Your task to perform on an android device: Search for a runner rug on Crate & Barrel. Image 0: 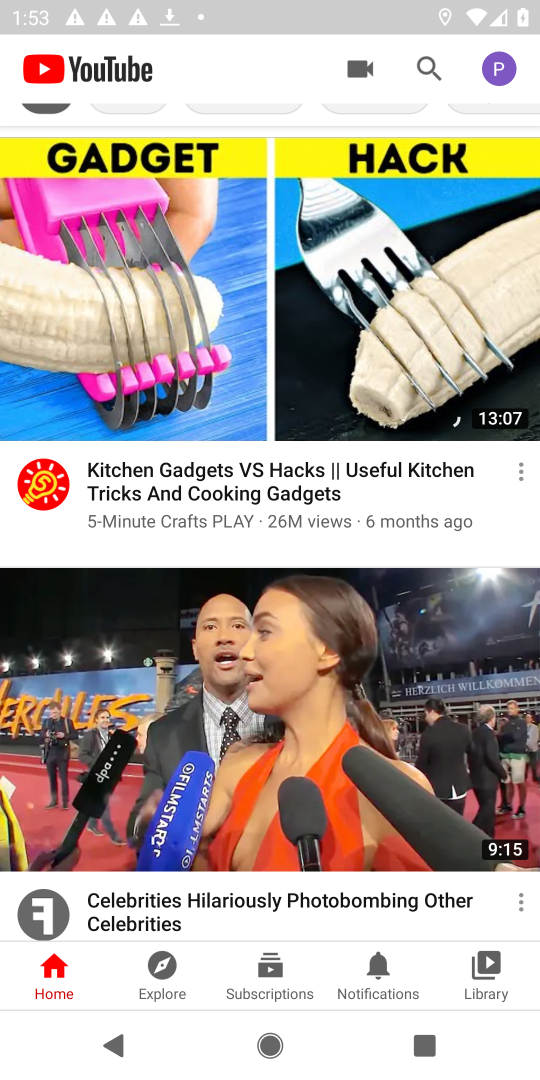
Step 0: press home button
Your task to perform on an android device: Search for a runner rug on Crate & Barrel. Image 1: 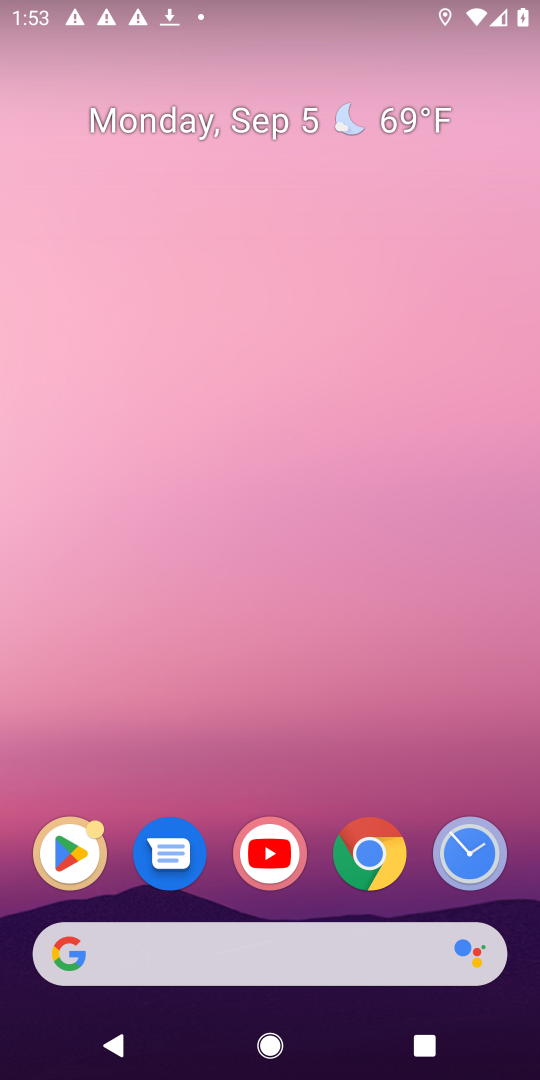
Step 1: click (470, 78)
Your task to perform on an android device: Search for a runner rug on Crate & Barrel. Image 2: 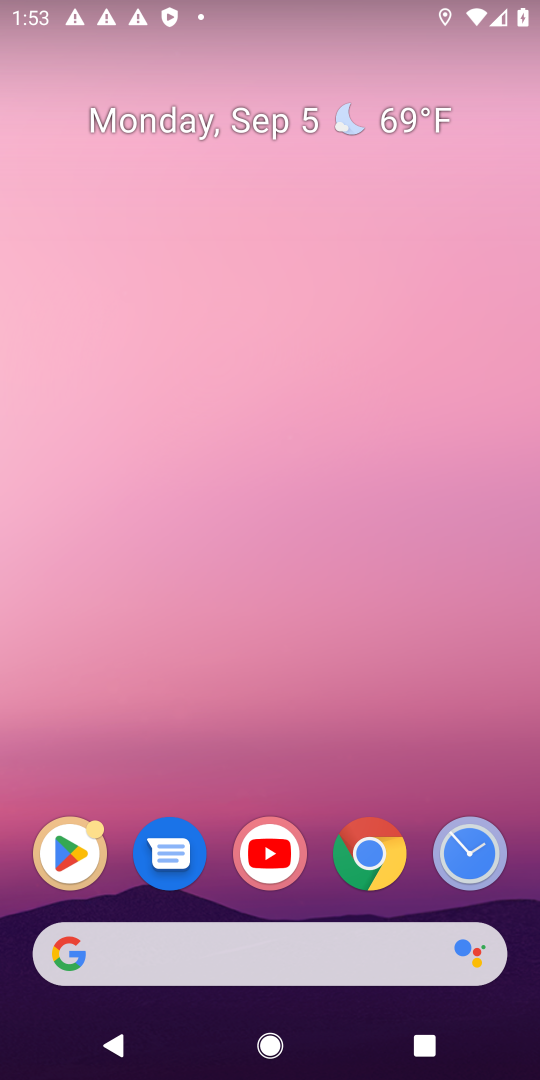
Step 2: drag from (239, 926) to (378, 147)
Your task to perform on an android device: Search for a runner rug on Crate & Barrel. Image 3: 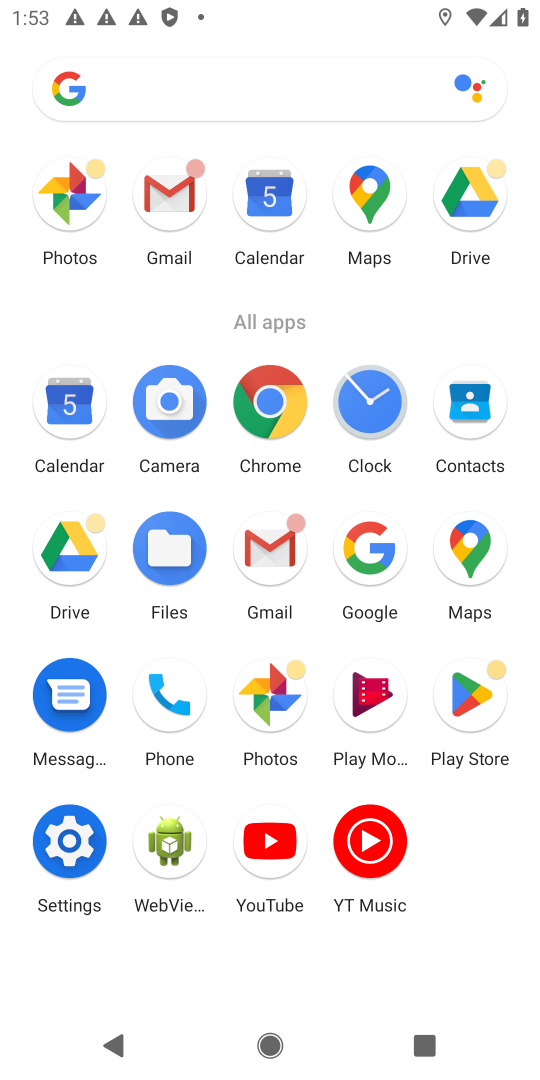
Step 3: click (371, 559)
Your task to perform on an android device: Search for a runner rug on Crate & Barrel. Image 4: 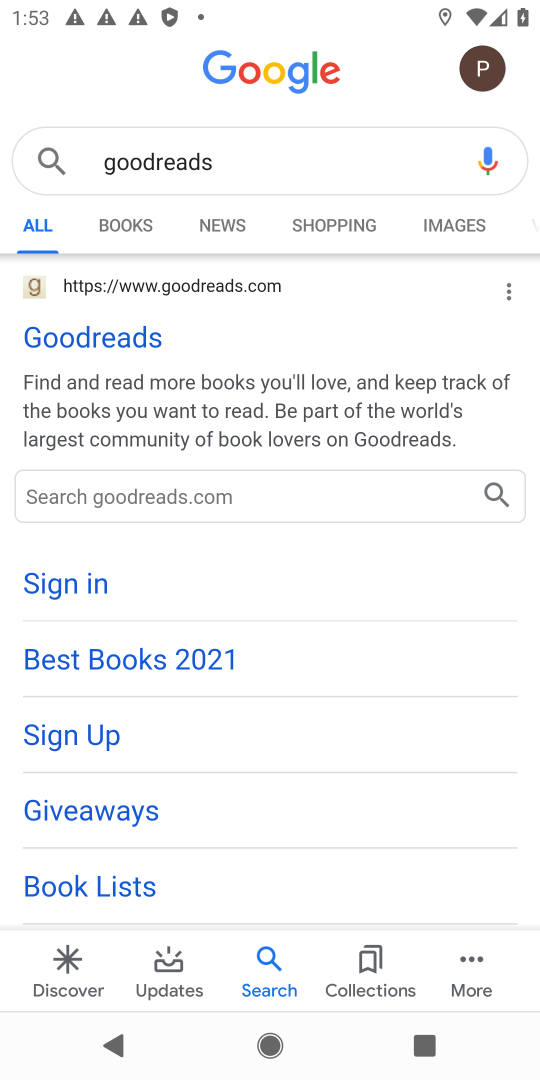
Step 4: click (244, 170)
Your task to perform on an android device: Search for a runner rug on Crate & Barrel. Image 5: 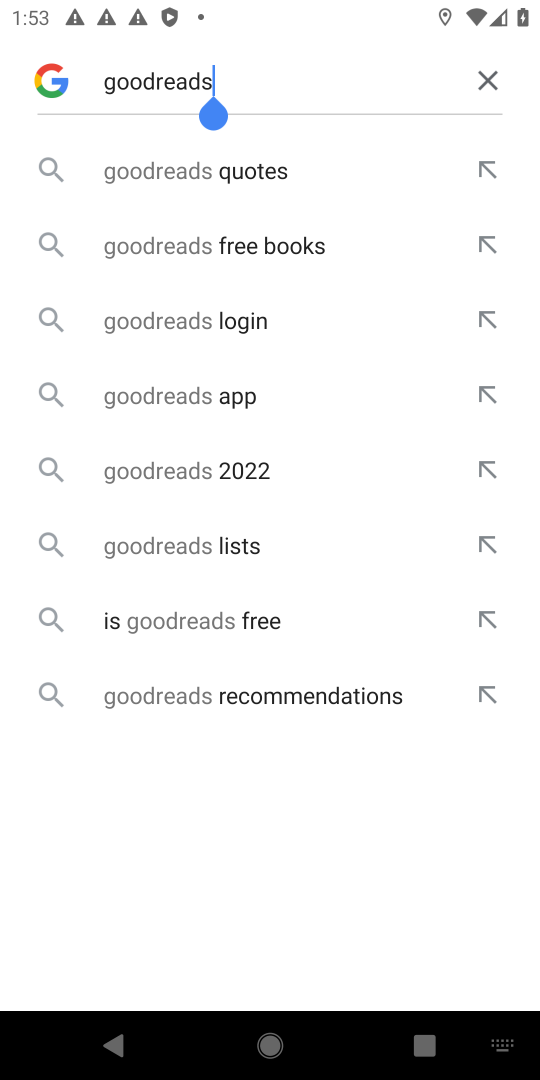
Step 5: click (492, 87)
Your task to perform on an android device: Search for a runner rug on Crate & Barrel. Image 6: 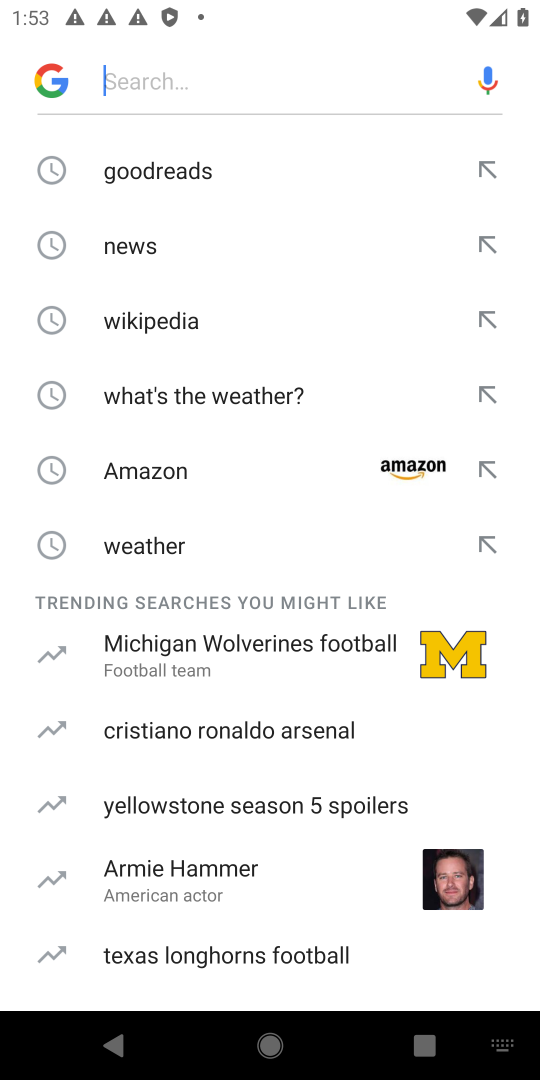
Step 6: type "Crate & Barrel"
Your task to perform on an android device: Search for a runner rug on Crate & Barrel. Image 7: 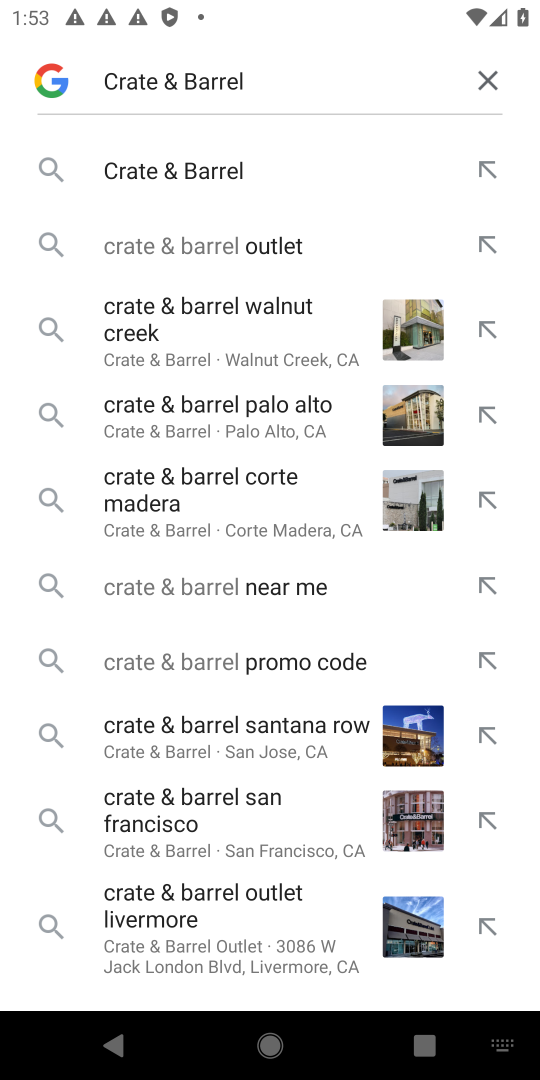
Step 7: click (218, 163)
Your task to perform on an android device: Search for a runner rug on Crate & Barrel. Image 8: 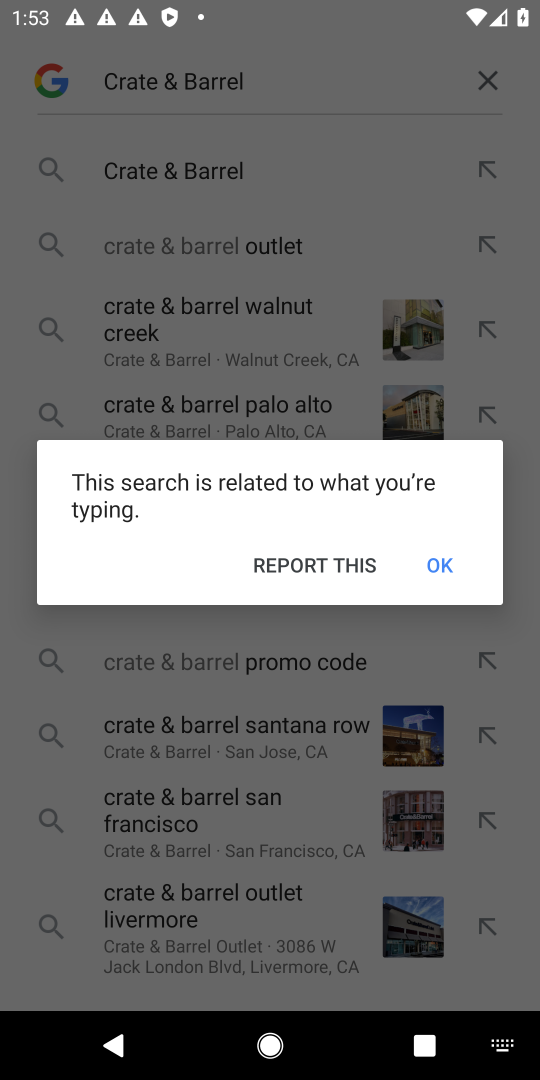
Step 8: click (439, 571)
Your task to perform on an android device: Search for a runner rug on Crate & Barrel. Image 9: 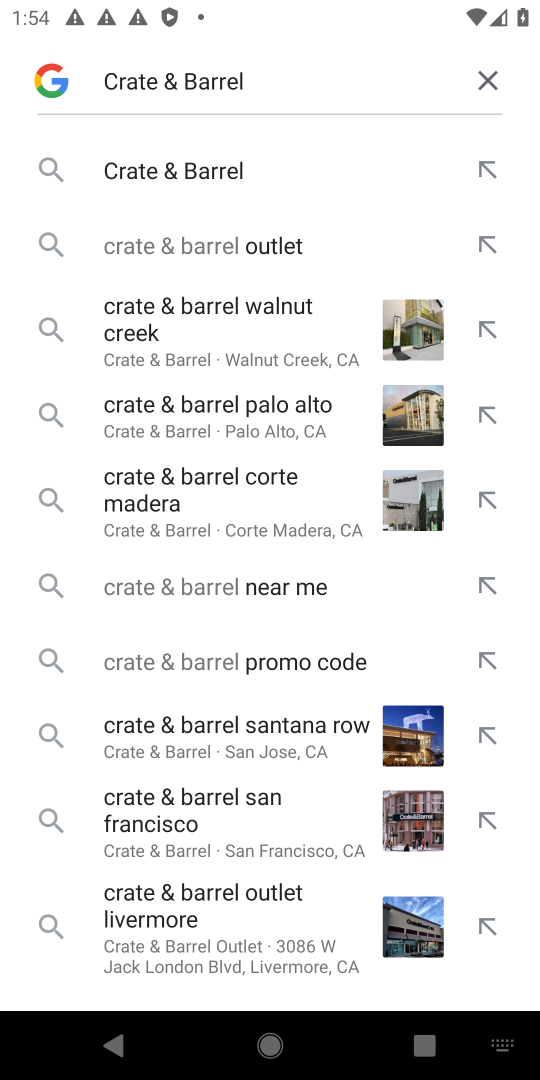
Step 9: click (488, 175)
Your task to perform on an android device: Search for a runner rug on Crate & Barrel. Image 10: 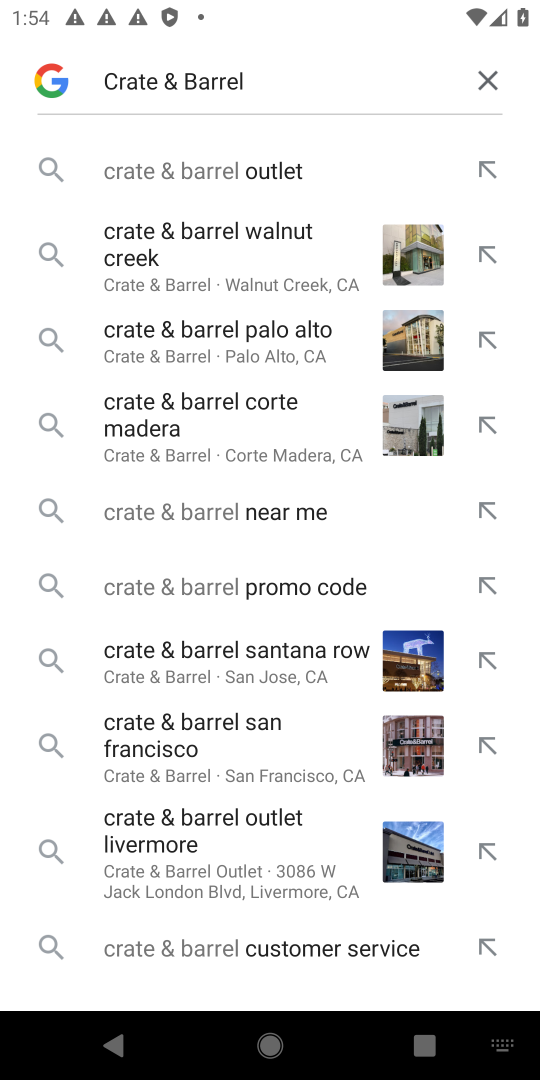
Step 10: click (263, 165)
Your task to perform on an android device: Search for a runner rug on Crate & Barrel. Image 11: 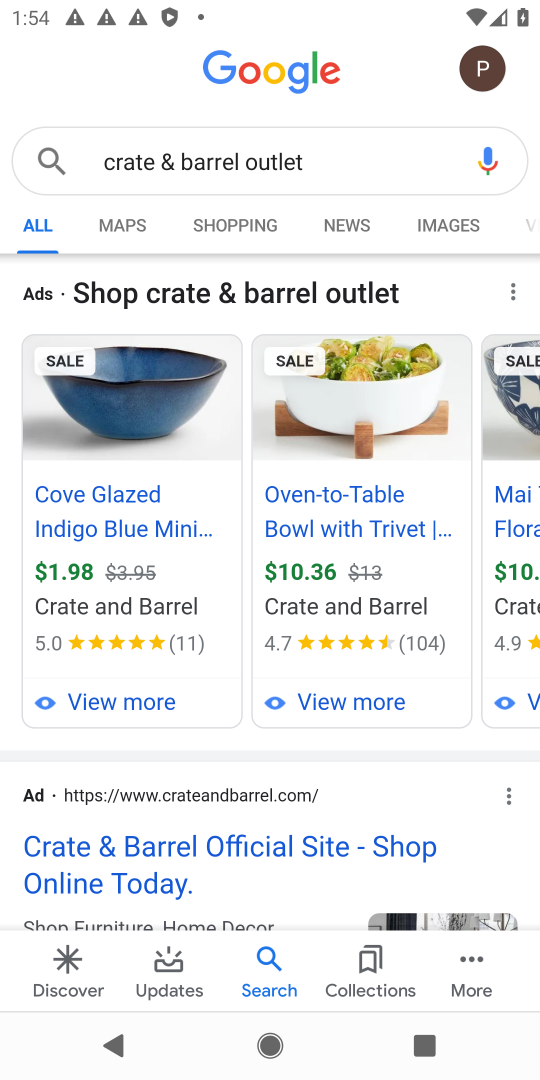
Step 11: click (209, 865)
Your task to perform on an android device: Search for a runner rug on Crate & Barrel. Image 12: 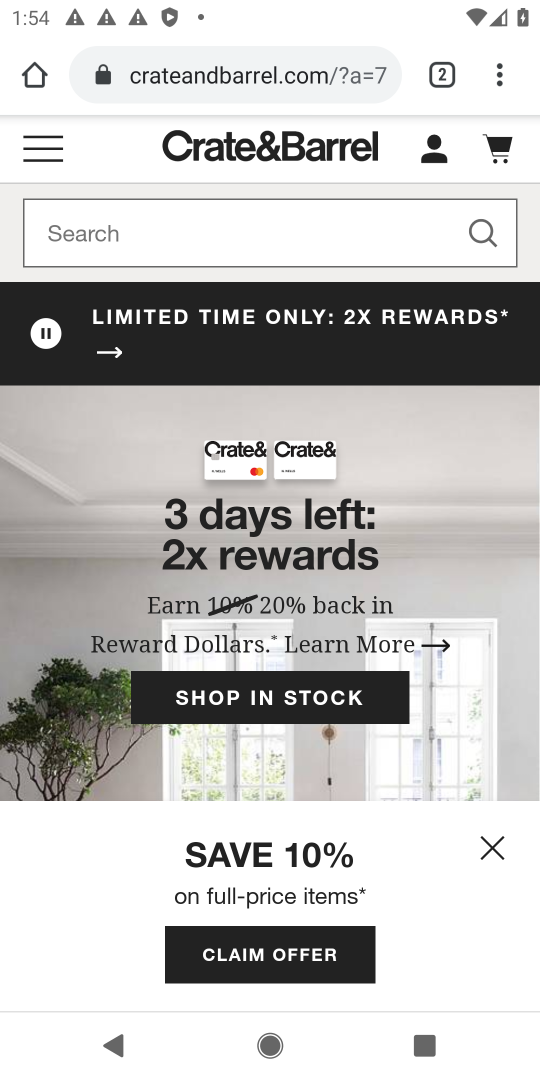
Step 12: click (296, 242)
Your task to perform on an android device: Search for a runner rug on Crate & Barrel. Image 13: 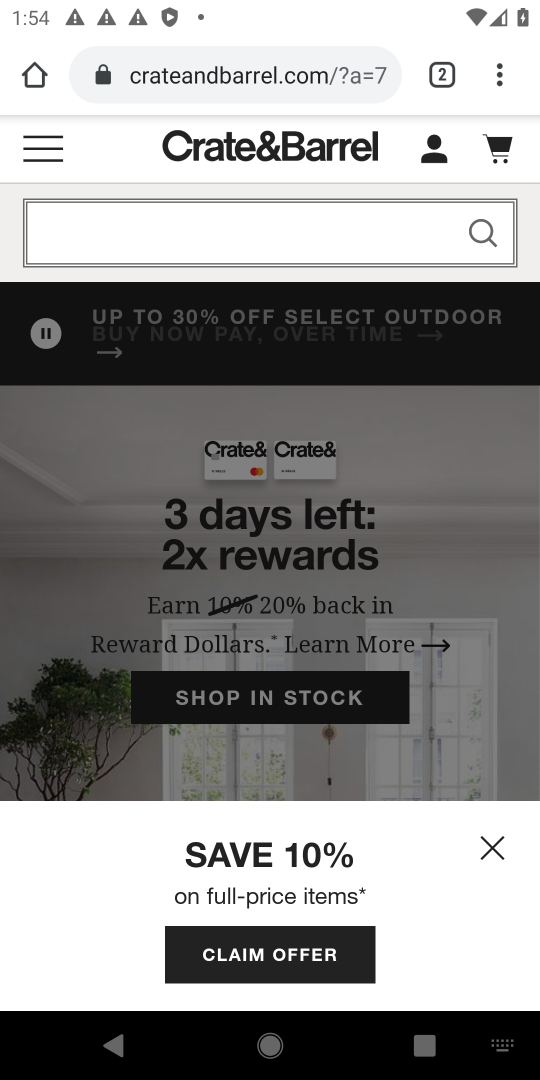
Step 13: type "runner rug"
Your task to perform on an android device: Search for a runner rug on Crate & Barrel. Image 14: 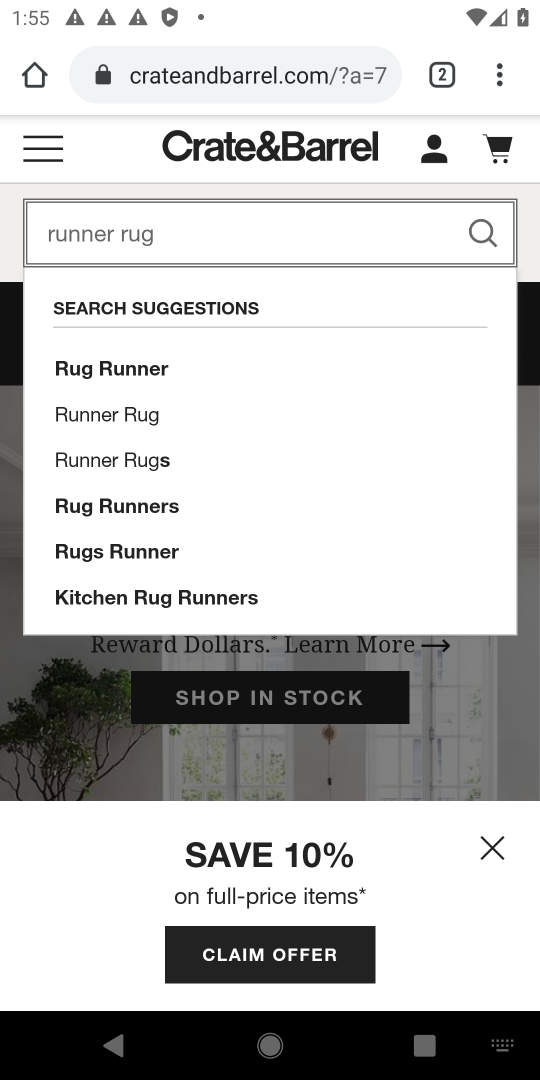
Step 14: click (136, 372)
Your task to perform on an android device: Search for a runner rug on Crate & Barrel. Image 15: 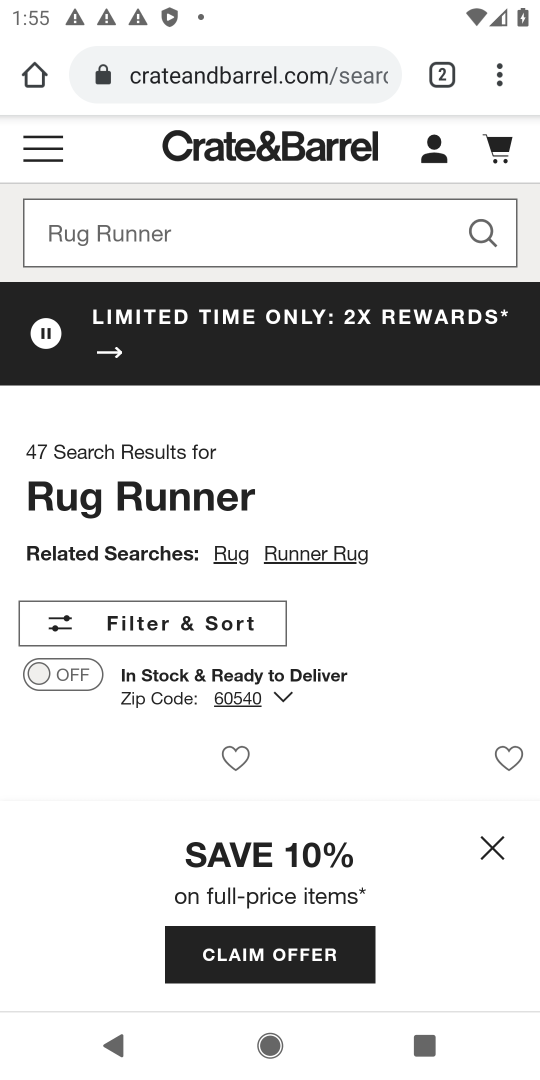
Step 15: click (493, 858)
Your task to perform on an android device: Search for a runner rug on Crate & Barrel. Image 16: 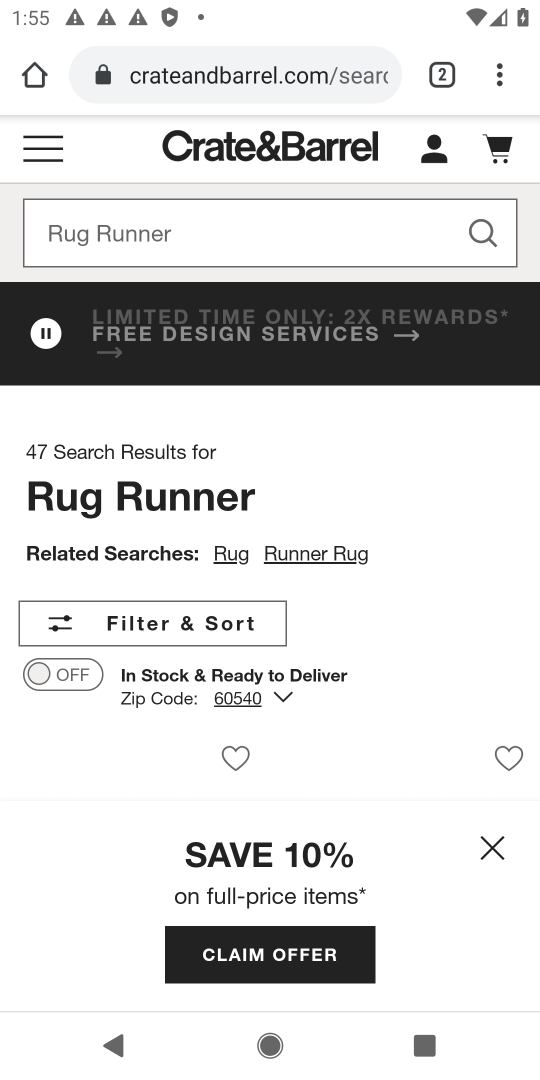
Step 16: task complete